Your task to perform on an android device: Open notification settings Image 0: 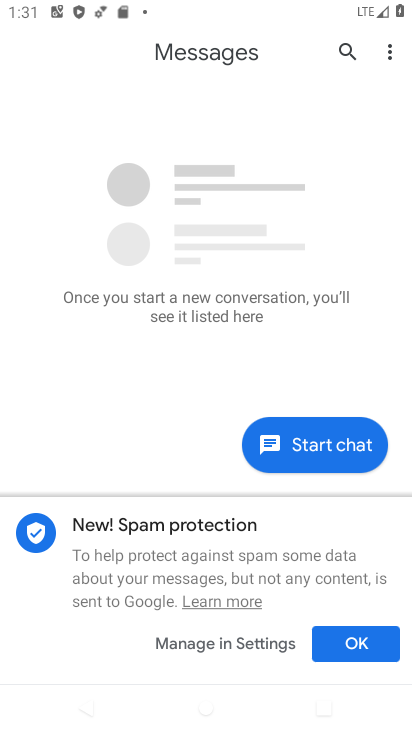
Step 0: press home button
Your task to perform on an android device: Open notification settings Image 1: 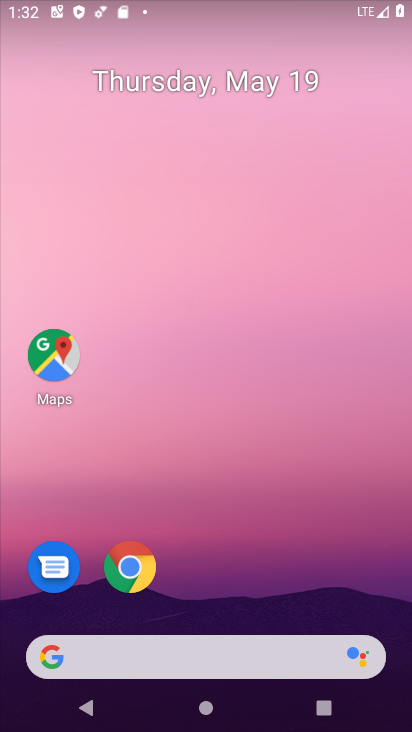
Step 1: drag from (78, 483) to (251, 134)
Your task to perform on an android device: Open notification settings Image 2: 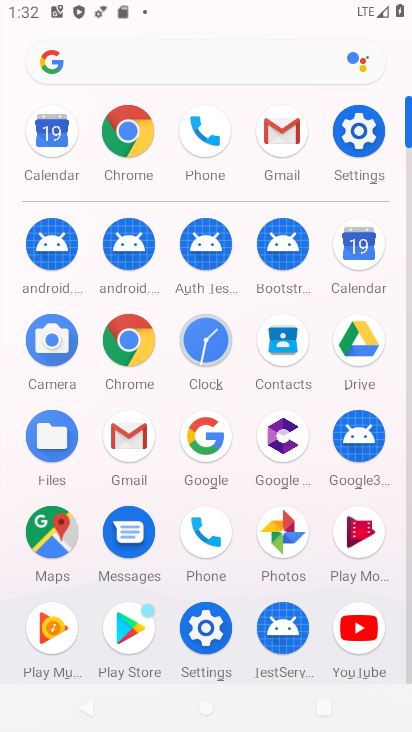
Step 2: click (364, 128)
Your task to perform on an android device: Open notification settings Image 3: 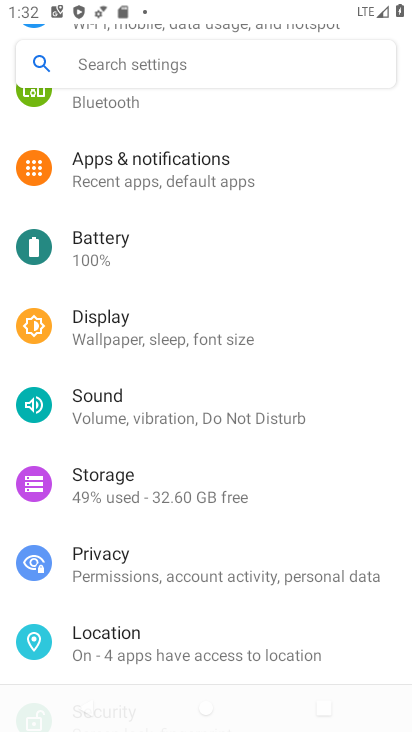
Step 3: click (239, 176)
Your task to perform on an android device: Open notification settings Image 4: 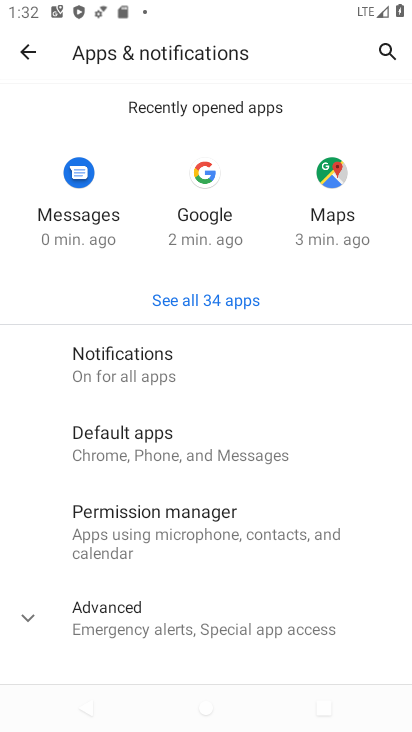
Step 4: click (109, 367)
Your task to perform on an android device: Open notification settings Image 5: 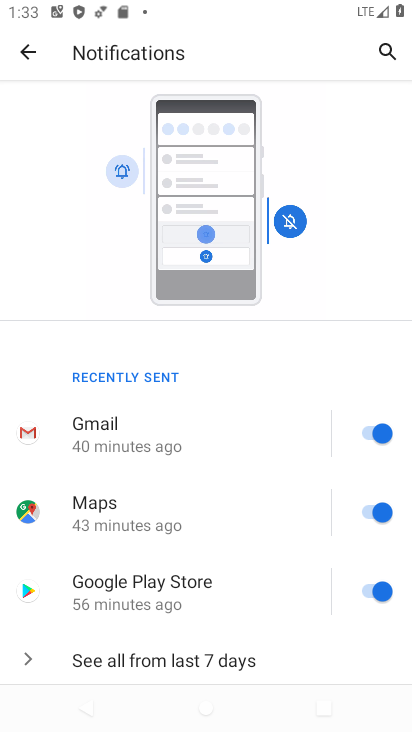
Step 5: task complete